Your task to perform on an android device: delete browsing data in the chrome app Image 0: 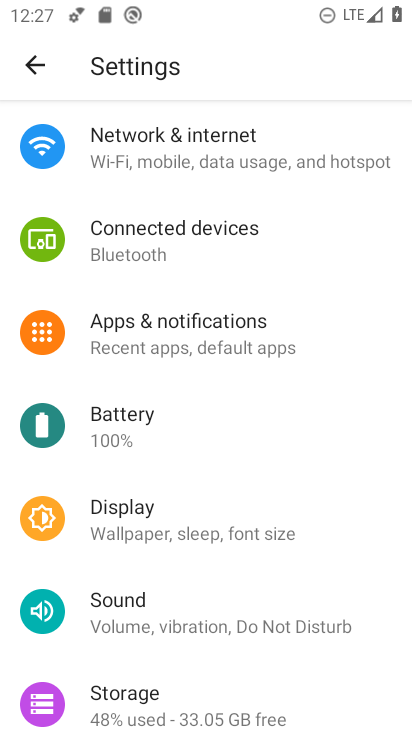
Step 0: press home button
Your task to perform on an android device: delete browsing data in the chrome app Image 1: 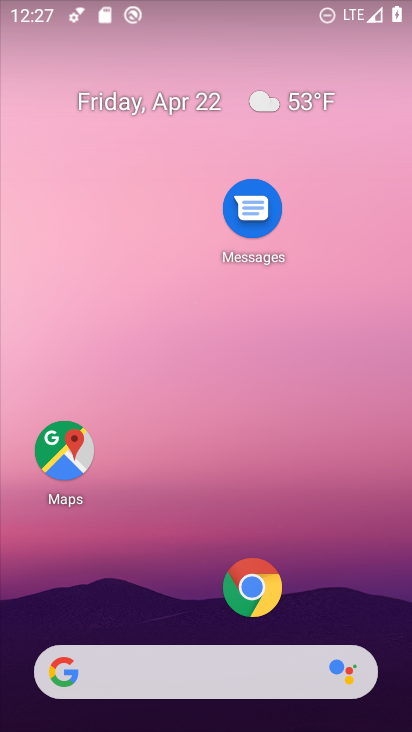
Step 1: click (256, 589)
Your task to perform on an android device: delete browsing data in the chrome app Image 2: 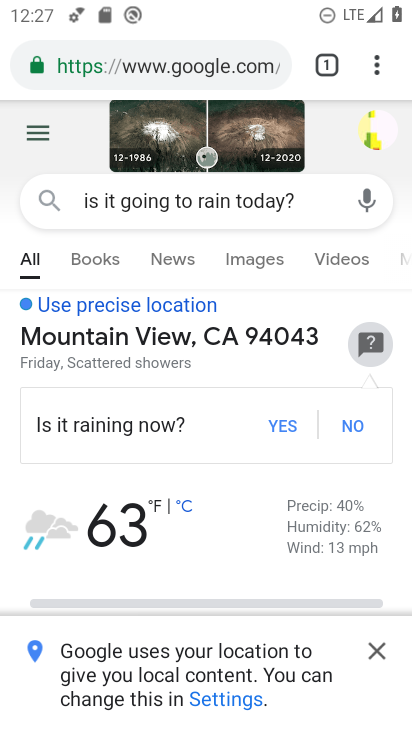
Step 2: click (375, 70)
Your task to perform on an android device: delete browsing data in the chrome app Image 3: 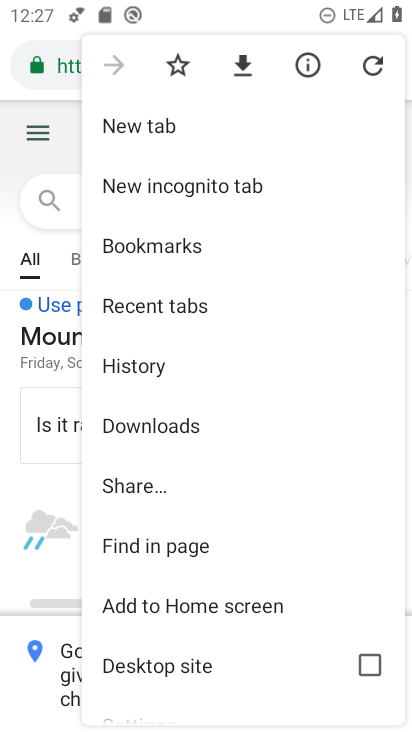
Step 3: click (170, 368)
Your task to perform on an android device: delete browsing data in the chrome app Image 4: 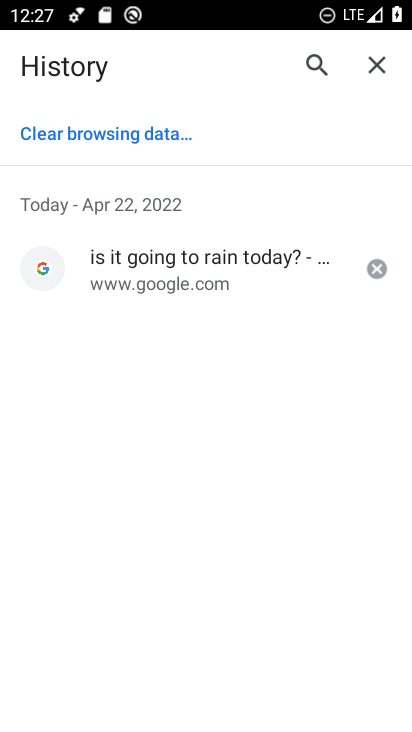
Step 4: click (146, 139)
Your task to perform on an android device: delete browsing data in the chrome app Image 5: 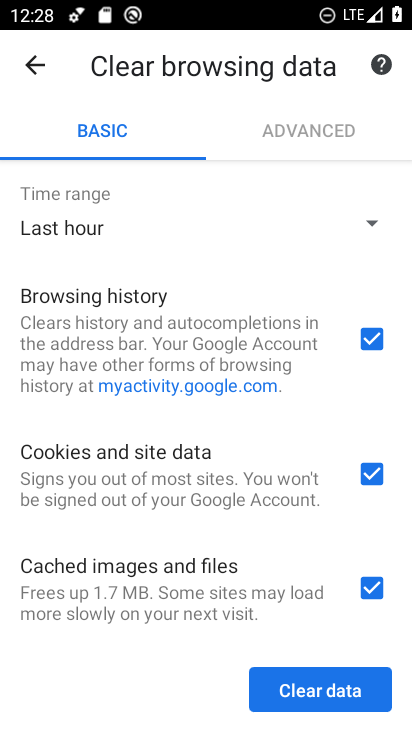
Step 5: click (387, 466)
Your task to perform on an android device: delete browsing data in the chrome app Image 6: 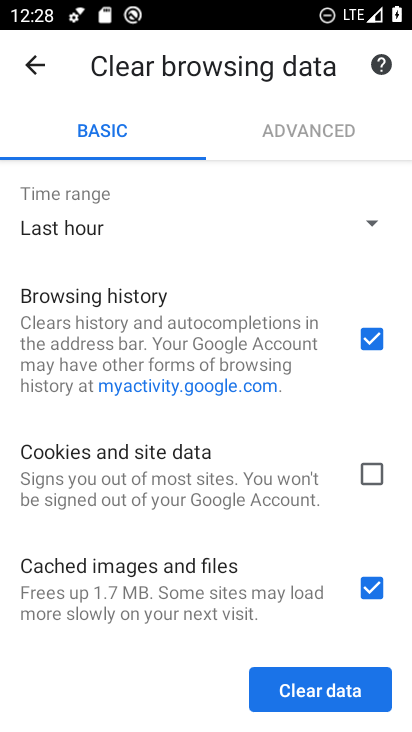
Step 6: click (372, 584)
Your task to perform on an android device: delete browsing data in the chrome app Image 7: 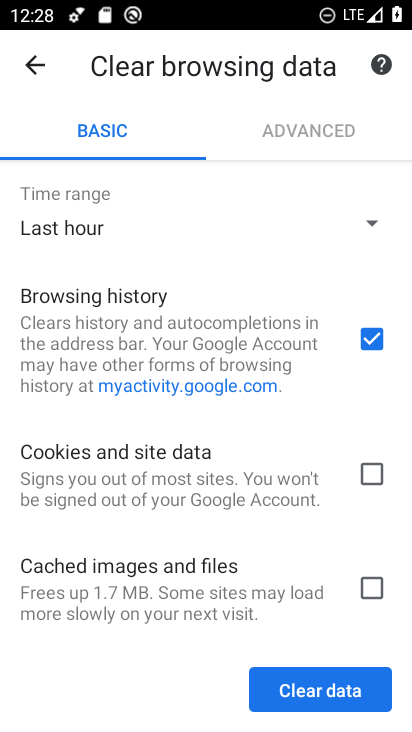
Step 7: click (329, 688)
Your task to perform on an android device: delete browsing data in the chrome app Image 8: 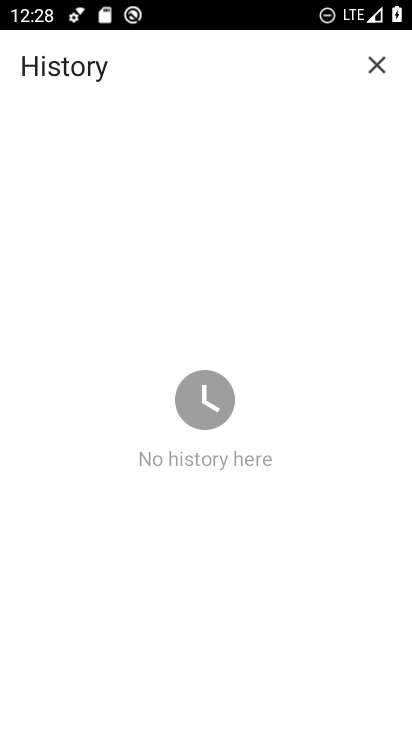
Step 8: task complete